Your task to perform on an android device: Open the phone app and click the voicemail tab. Image 0: 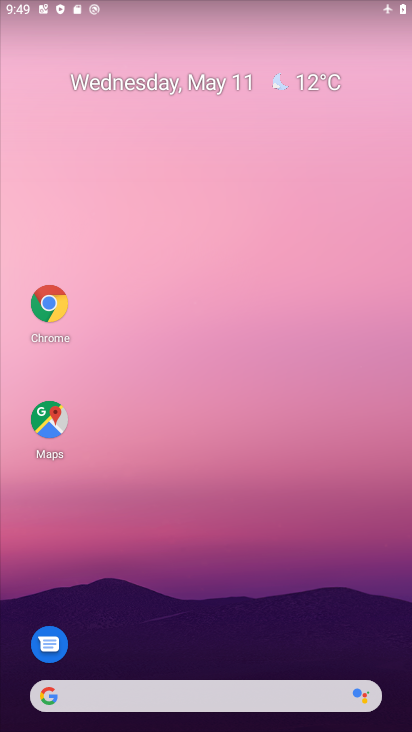
Step 0: press home button
Your task to perform on an android device: Open the phone app and click the voicemail tab. Image 1: 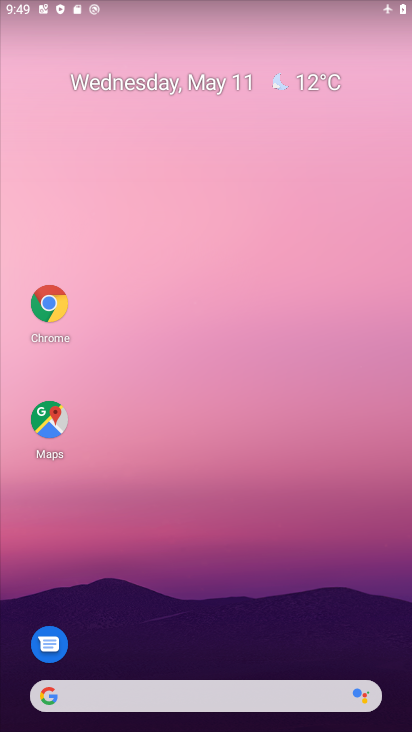
Step 1: drag from (144, 656) to (229, 177)
Your task to perform on an android device: Open the phone app and click the voicemail tab. Image 2: 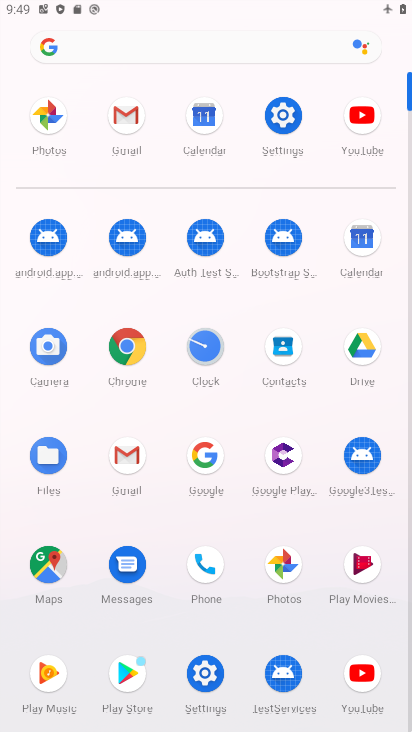
Step 2: click (210, 570)
Your task to perform on an android device: Open the phone app and click the voicemail tab. Image 3: 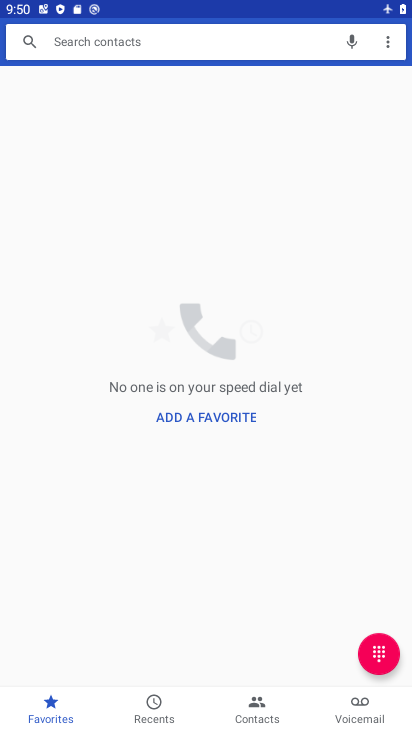
Step 3: click (360, 708)
Your task to perform on an android device: Open the phone app and click the voicemail tab. Image 4: 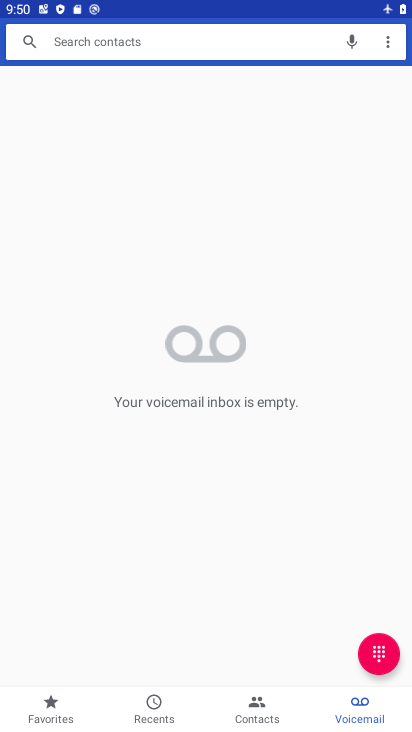
Step 4: task complete